Your task to perform on an android device: set an alarm Image 0: 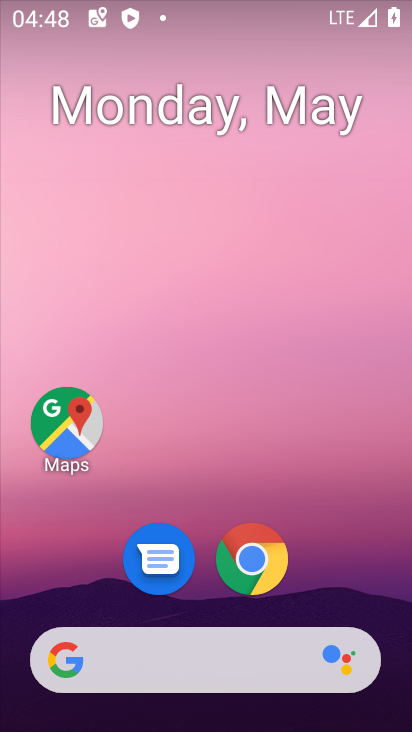
Step 0: drag from (299, 619) to (355, 53)
Your task to perform on an android device: set an alarm Image 1: 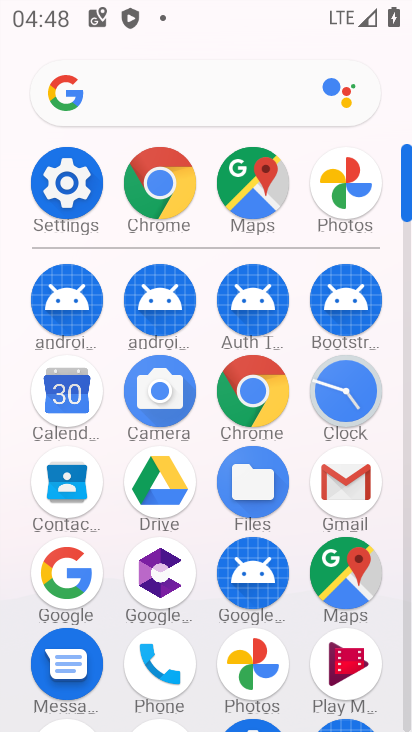
Step 1: click (343, 390)
Your task to perform on an android device: set an alarm Image 2: 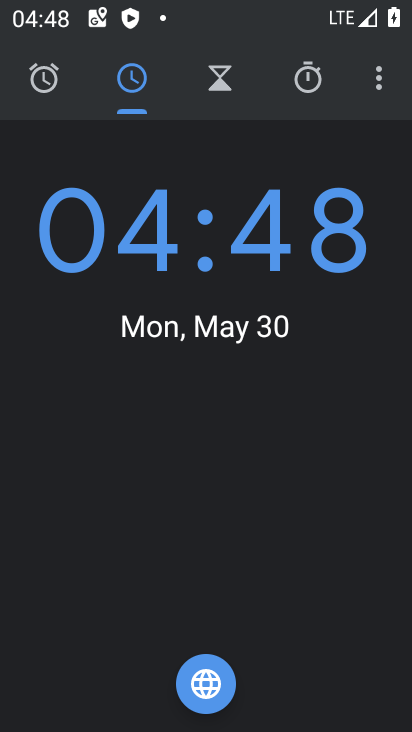
Step 2: click (44, 79)
Your task to perform on an android device: set an alarm Image 3: 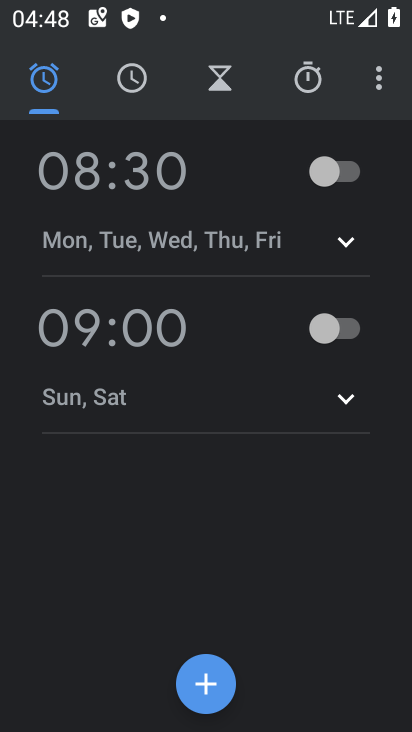
Step 3: click (356, 169)
Your task to perform on an android device: set an alarm Image 4: 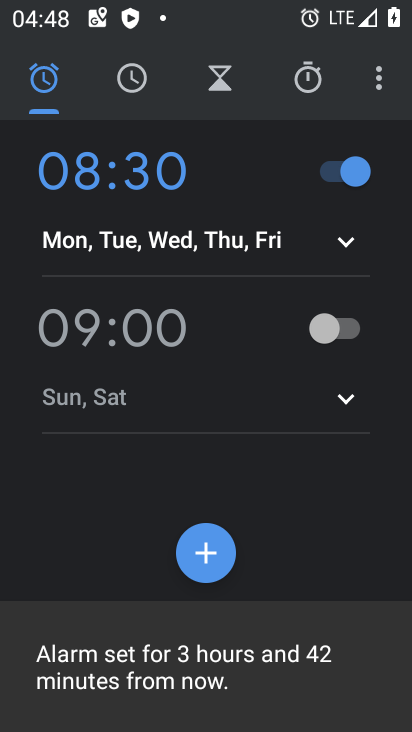
Step 4: task complete